Your task to perform on an android device: turn off wifi Image 0: 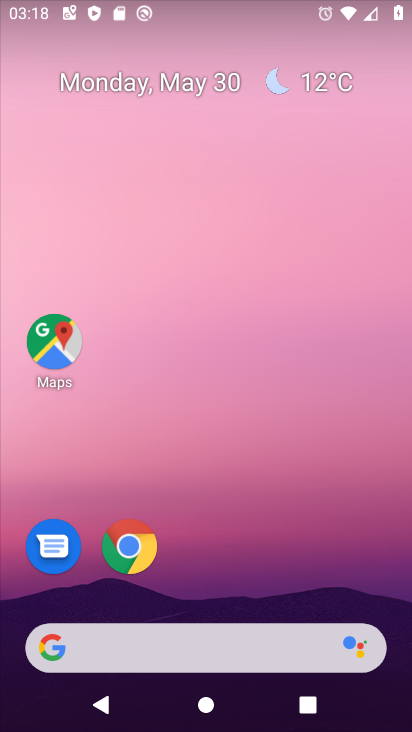
Step 0: press home button
Your task to perform on an android device: turn off wifi Image 1: 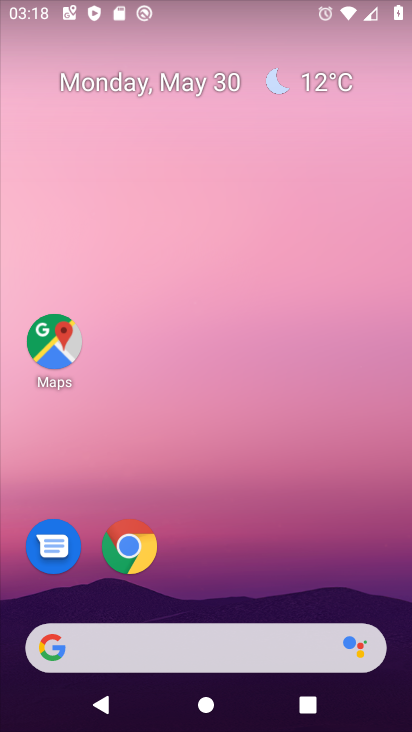
Step 1: drag from (231, 11) to (186, 483)
Your task to perform on an android device: turn off wifi Image 2: 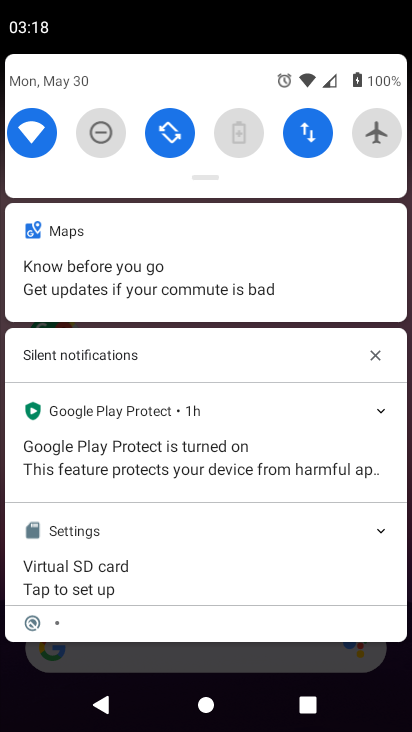
Step 2: click (28, 136)
Your task to perform on an android device: turn off wifi Image 3: 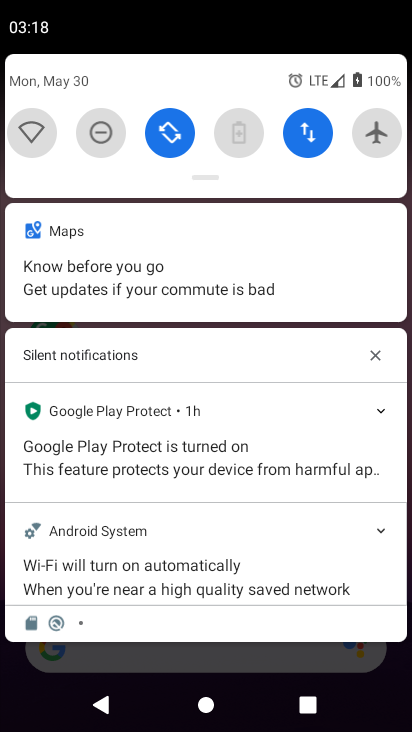
Step 3: task complete